Your task to perform on an android device: Play the last video I watched on Youtube Image 0: 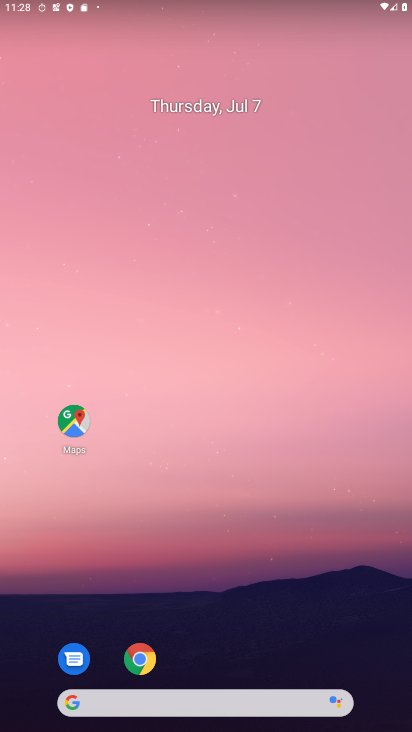
Step 0: drag from (202, 666) to (231, 71)
Your task to perform on an android device: Play the last video I watched on Youtube Image 1: 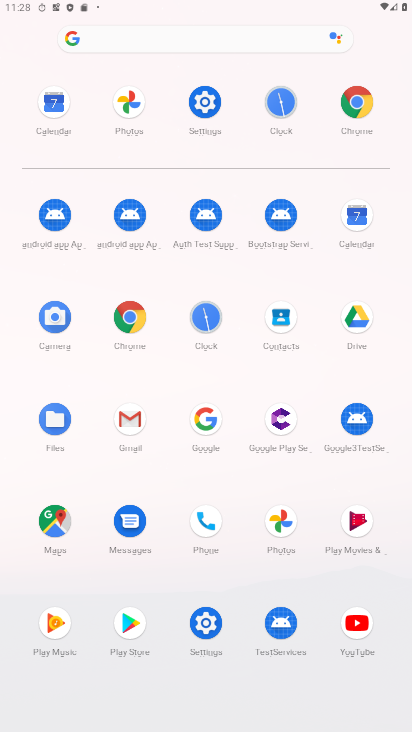
Step 1: click (351, 618)
Your task to perform on an android device: Play the last video I watched on Youtube Image 2: 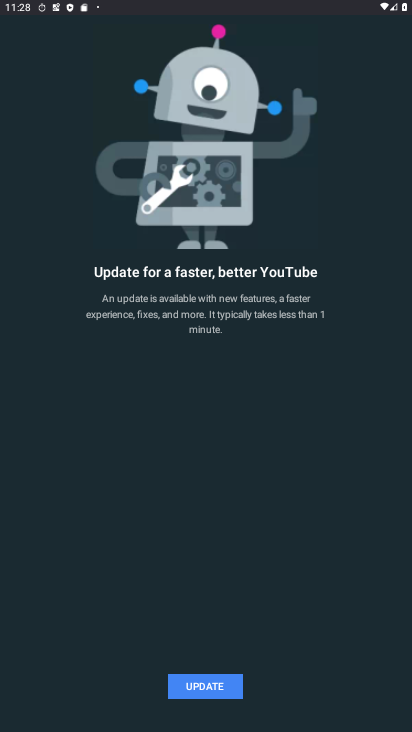
Step 2: click (203, 686)
Your task to perform on an android device: Play the last video I watched on Youtube Image 3: 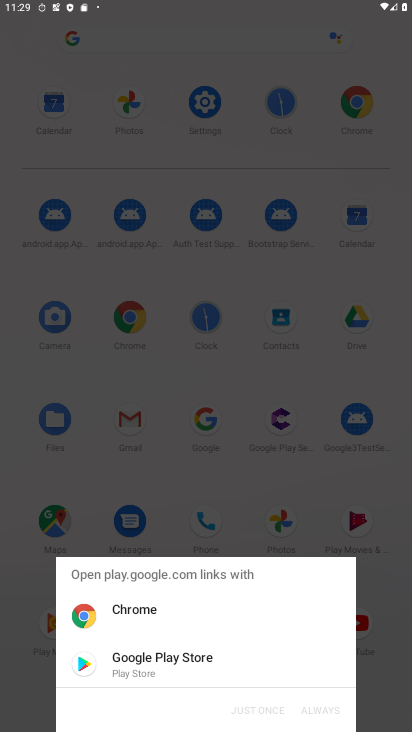
Step 3: click (151, 657)
Your task to perform on an android device: Play the last video I watched on Youtube Image 4: 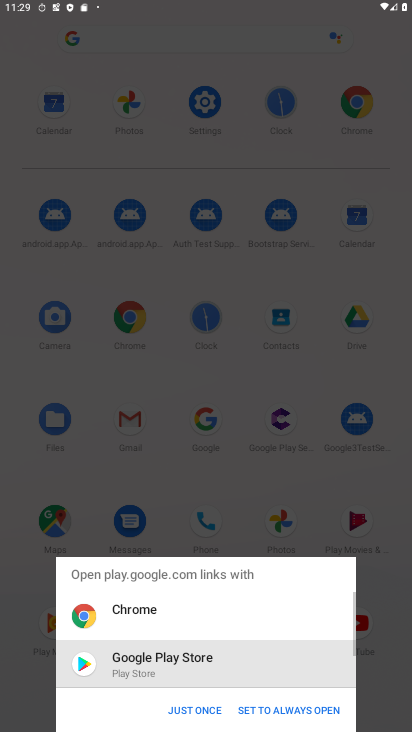
Step 4: click (191, 709)
Your task to perform on an android device: Play the last video I watched on Youtube Image 5: 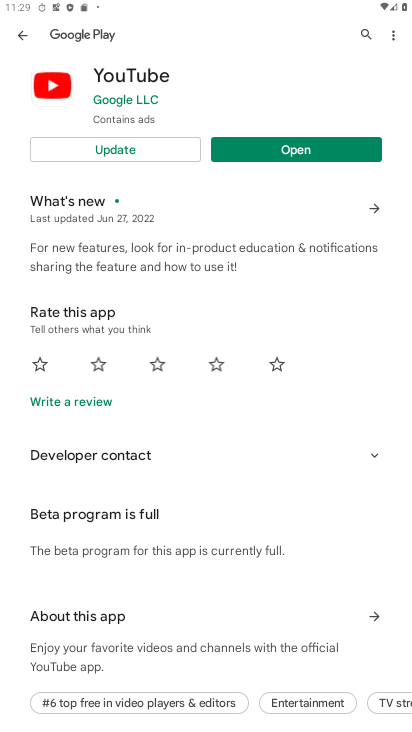
Step 5: click (120, 148)
Your task to perform on an android device: Play the last video I watched on Youtube Image 6: 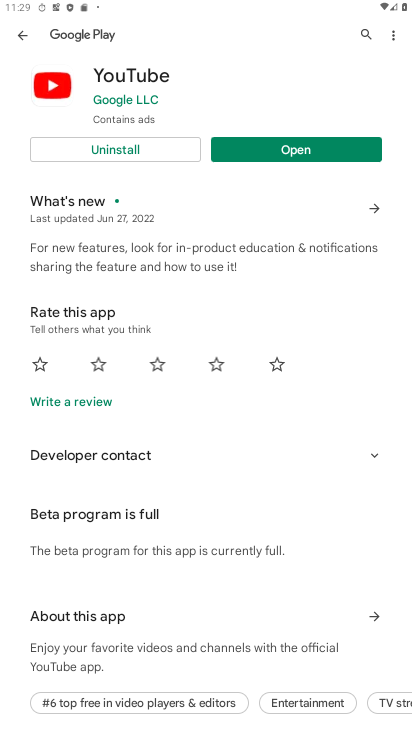
Step 6: click (285, 151)
Your task to perform on an android device: Play the last video I watched on Youtube Image 7: 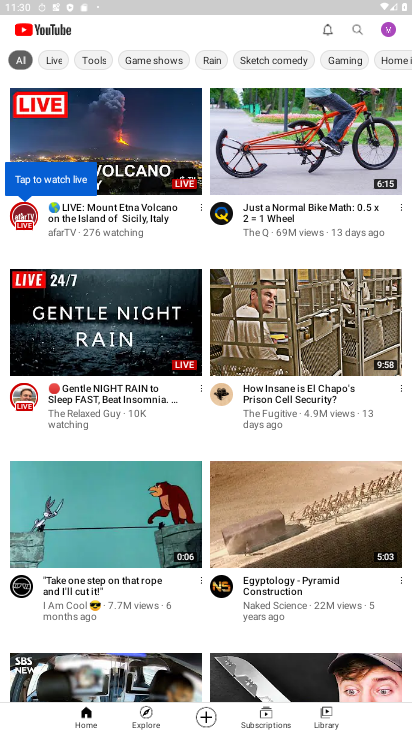
Step 7: click (323, 714)
Your task to perform on an android device: Play the last video I watched on Youtube Image 8: 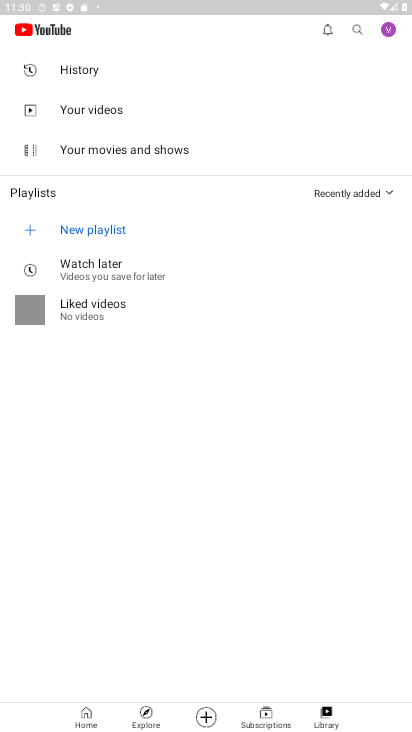
Step 8: click (87, 712)
Your task to perform on an android device: Play the last video I watched on Youtube Image 9: 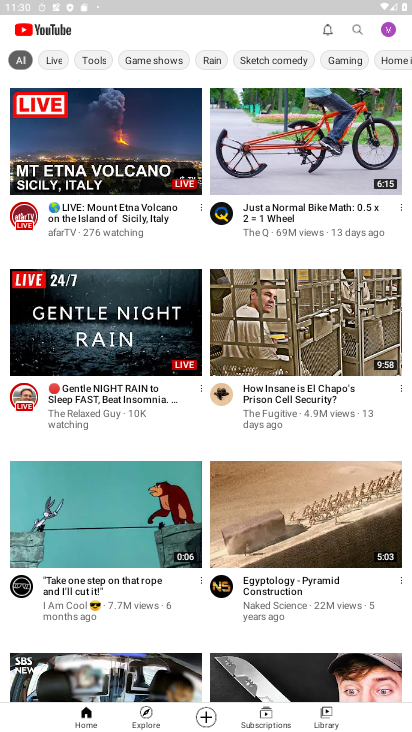
Step 9: click (144, 712)
Your task to perform on an android device: Play the last video I watched on Youtube Image 10: 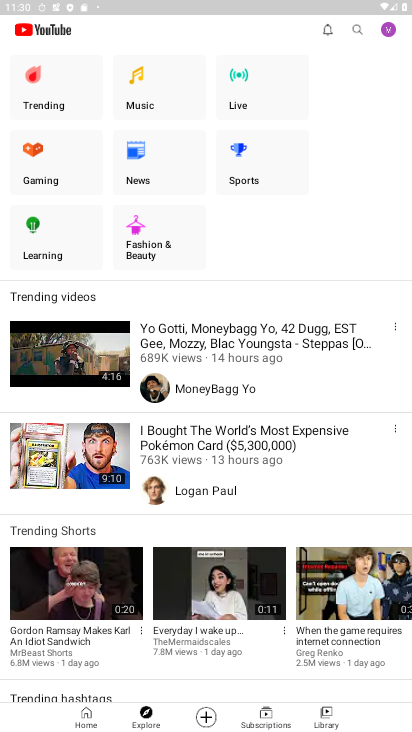
Step 10: click (383, 24)
Your task to perform on an android device: Play the last video I watched on Youtube Image 11: 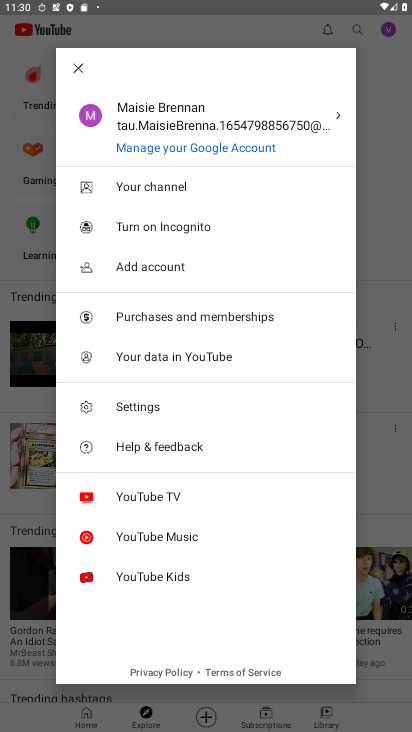
Step 11: click (35, 625)
Your task to perform on an android device: Play the last video I watched on Youtube Image 12: 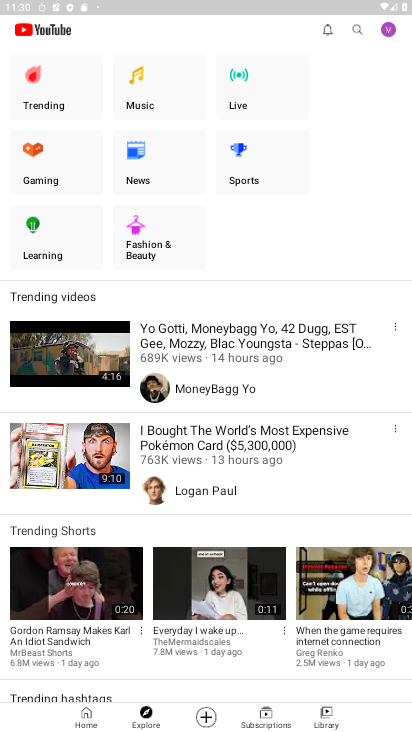
Step 12: click (328, 715)
Your task to perform on an android device: Play the last video I watched on Youtube Image 13: 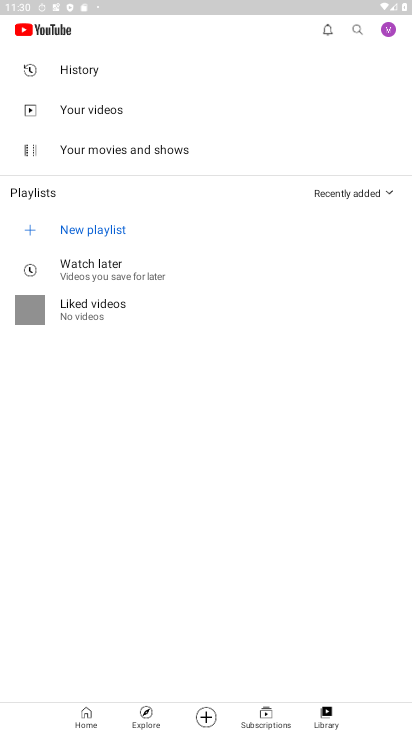
Step 13: click (76, 69)
Your task to perform on an android device: Play the last video I watched on Youtube Image 14: 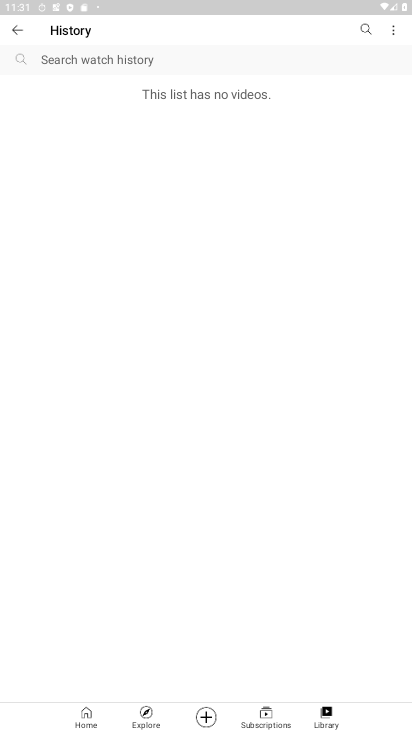
Step 14: task complete